Your task to perform on an android device: Show me recent news Image 0: 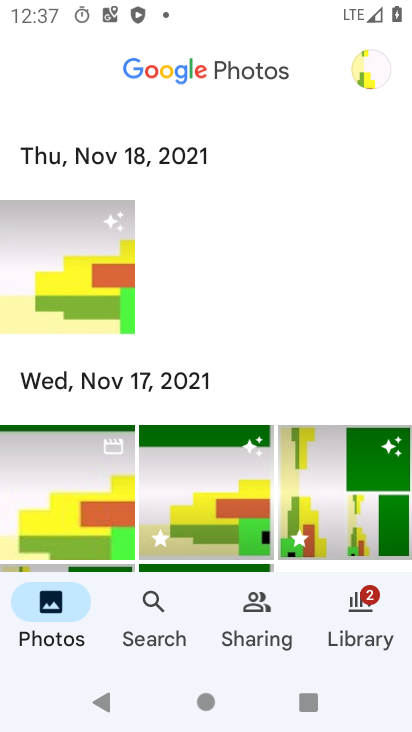
Step 0: press home button
Your task to perform on an android device: Show me recent news Image 1: 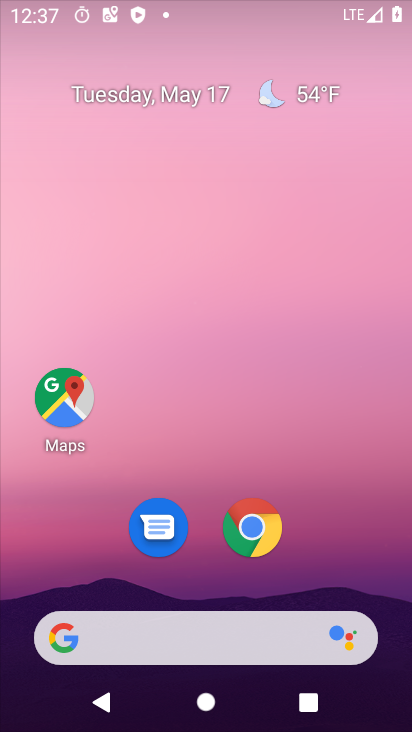
Step 1: drag from (255, 662) to (269, 292)
Your task to perform on an android device: Show me recent news Image 2: 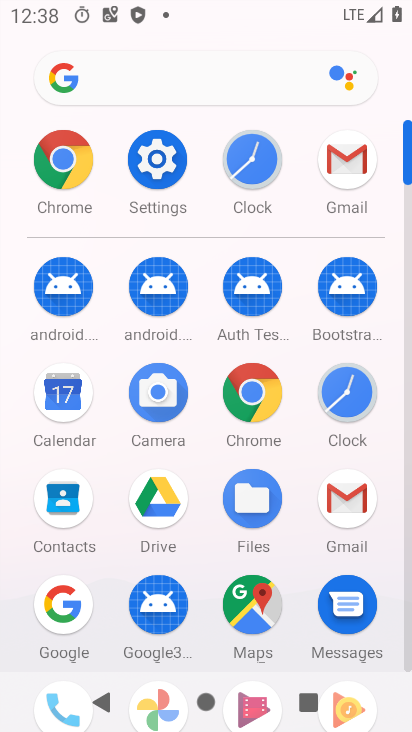
Step 2: click (270, 93)
Your task to perform on an android device: Show me recent news Image 3: 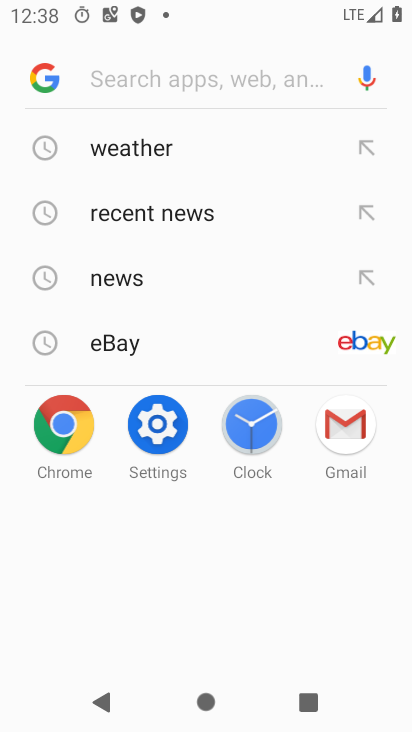
Step 3: click (190, 216)
Your task to perform on an android device: Show me recent news Image 4: 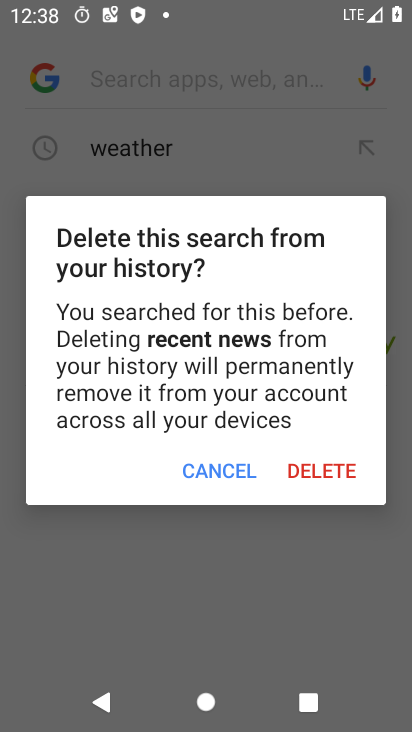
Step 4: click (196, 463)
Your task to perform on an android device: Show me recent news Image 5: 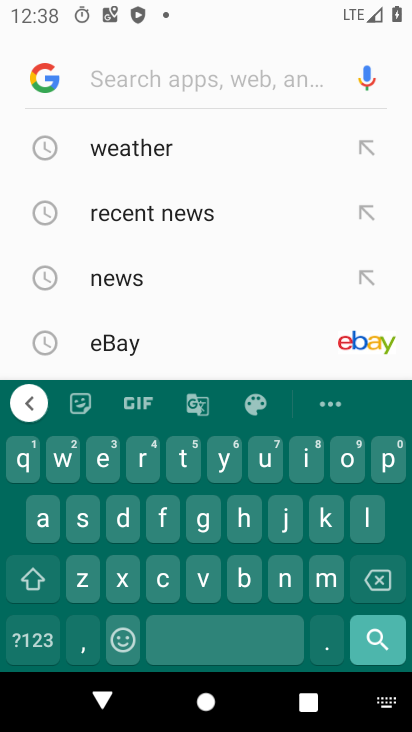
Step 5: click (163, 206)
Your task to perform on an android device: Show me recent news Image 6: 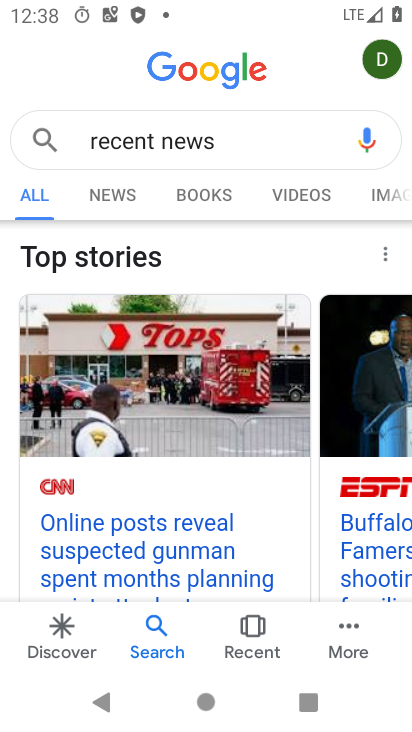
Step 6: task complete